Your task to perform on an android device: Open Chrome and go to the settings page Image 0: 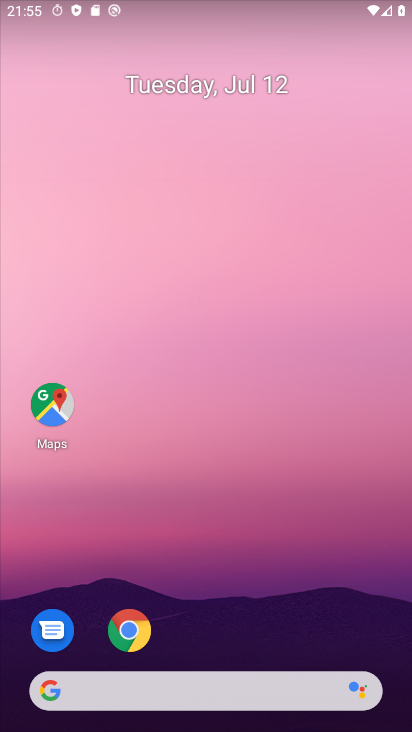
Step 0: click (127, 618)
Your task to perform on an android device: Open Chrome and go to the settings page Image 1: 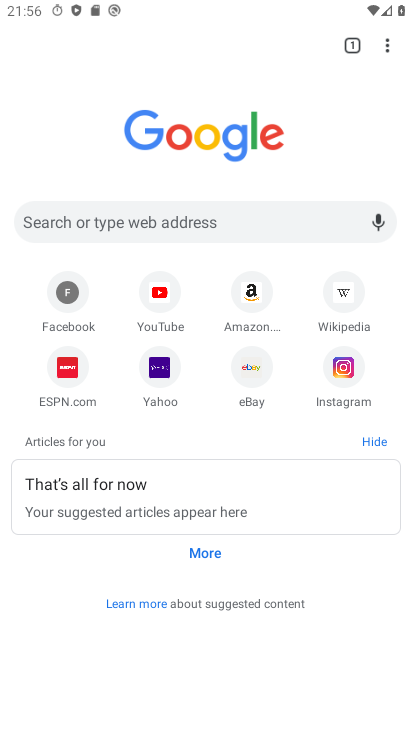
Step 1: task complete